Your task to perform on an android device: open sync settings in chrome Image 0: 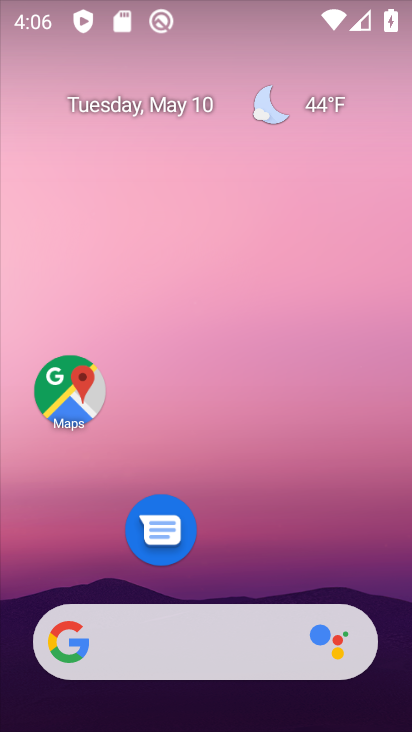
Step 0: drag from (233, 513) to (329, 11)
Your task to perform on an android device: open sync settings in chrome Image 1: 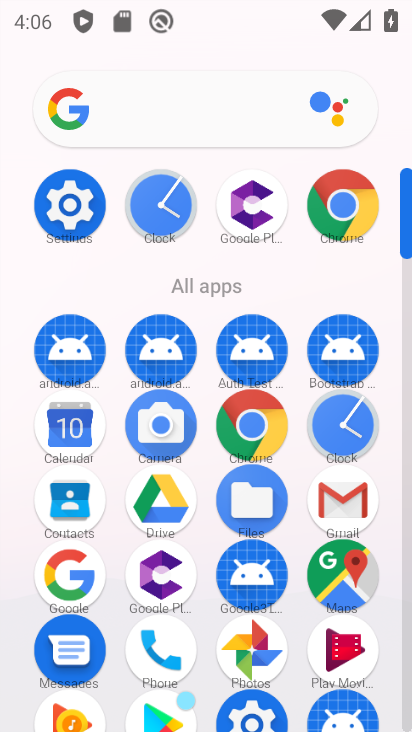
Step 1: click (355, 193)
Your task to perform on an android device: open sync settings in chrome Image 2: 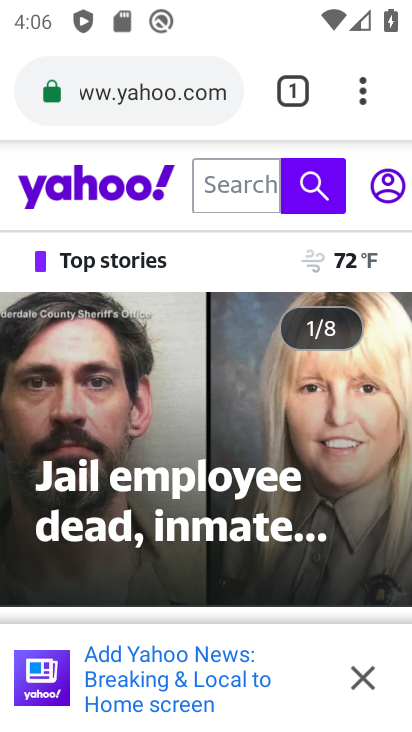
Step 2: click (366, 89)
Your task to perform on an android device: open sync settings in chrome Image 3: 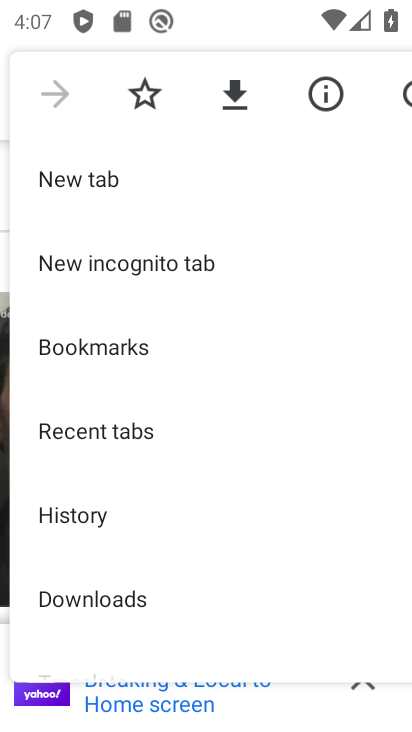
Step 3: drag from (138, 624) to (291, 65)
Your task to perform on an android device: open sync settings in chrome Image 4: 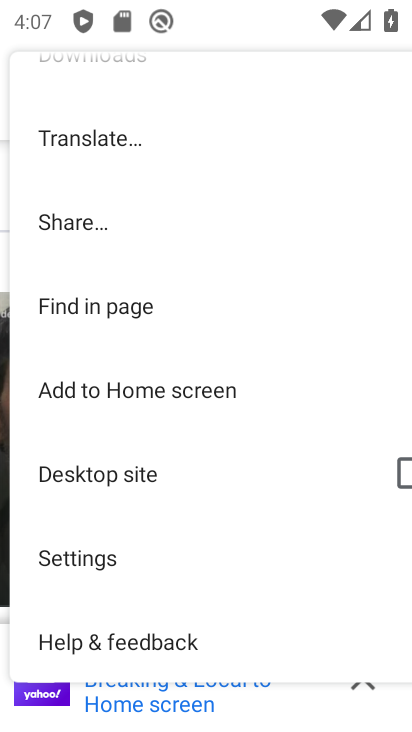
Step 4: click (109, 569)
Your task to perform on an android device: open sync settings in chrome Image 5: 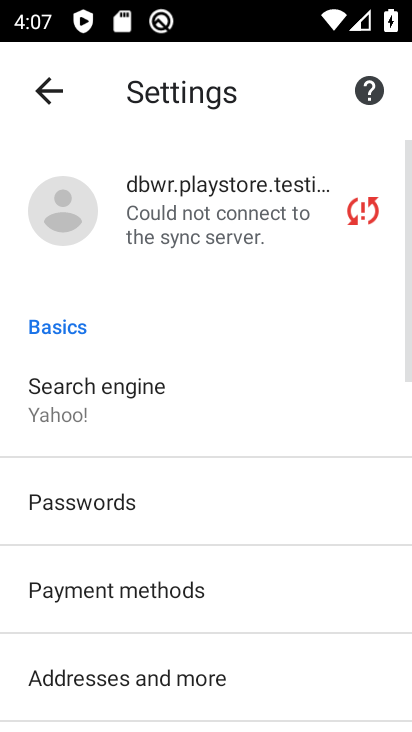
Step 5: click (179, 213)
Your task to perform on an android device: open sync settings in chrome Image 6: 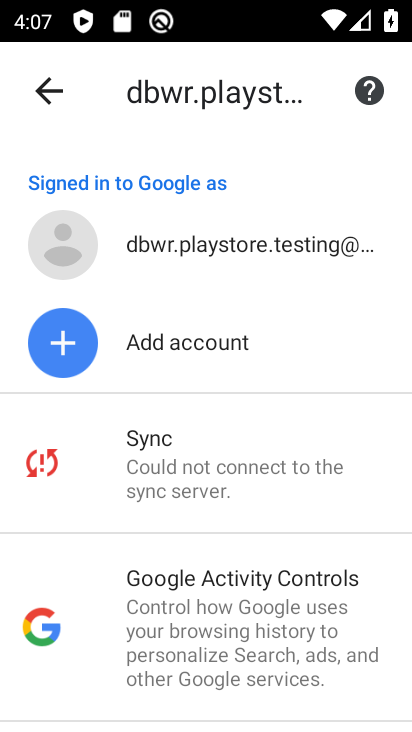
Step 6: task complete